Your task to perform on an android device: turn on improve location accuracy Image 0: 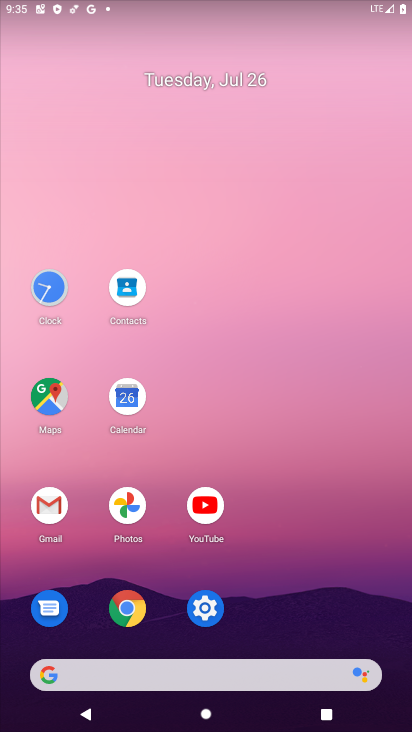
Step 0: click (207, 609)
Your task to perform on an android device: turn on improve location accuracy Image 1: 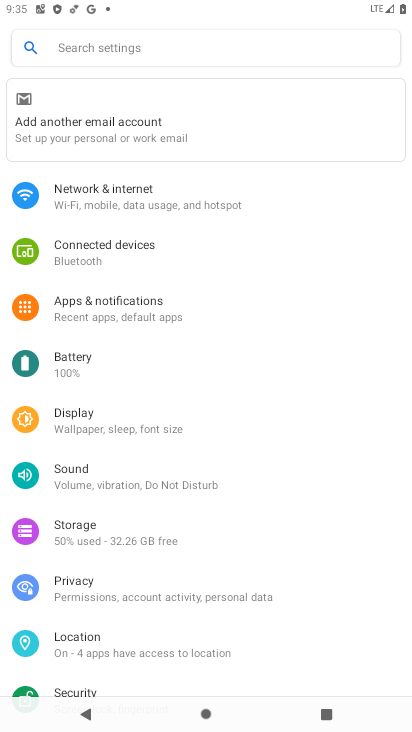
Step 1: click (76, 635)
Your task to perform on an android device: turn on improve location accuracy Image 2: 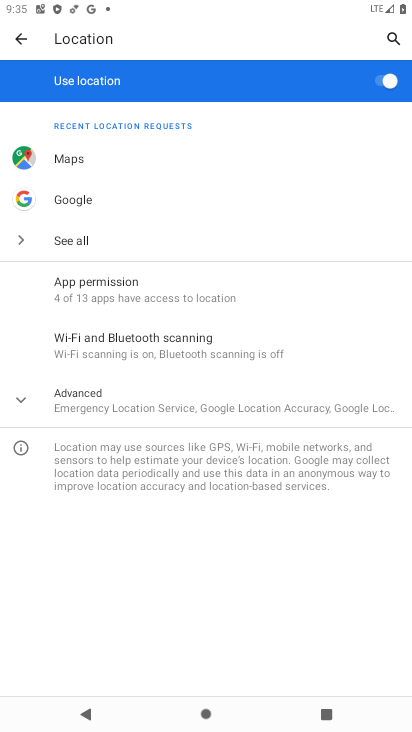
Step 2: click (31, 395)
Your task to perform on an android device: turn on improve location accuracy Image 3: 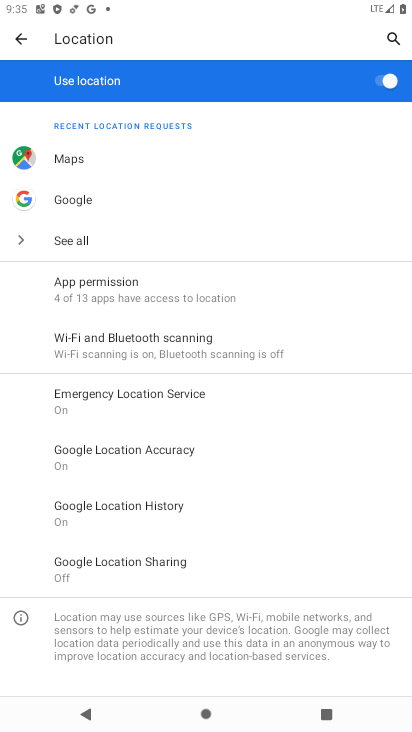
Step 3: click (94, 442)
Your task to perform on an android device: turn on improve location accuracy Image 4: 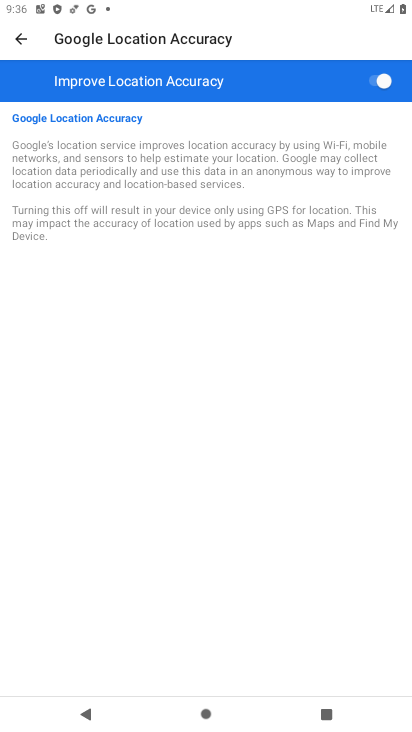
Step 4: task complete